Your task to perform on an android device: delete location history Image 0: 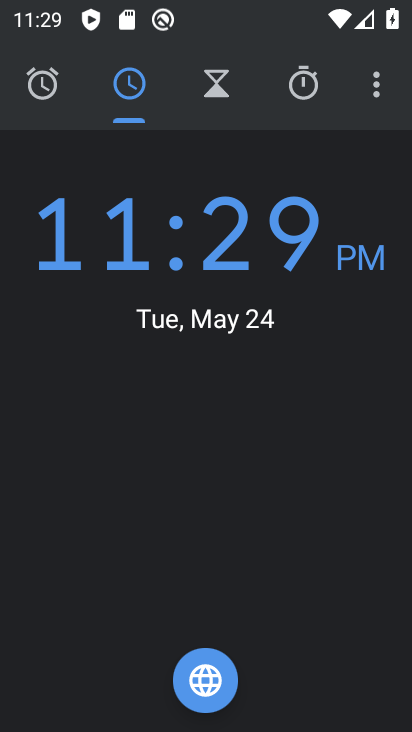
Step 0: press home button
Your task to perform on an android device: delete location history Image 1: 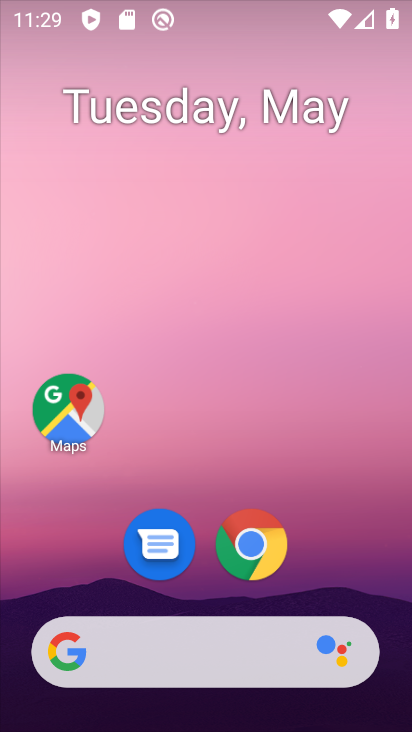
Step 1: drag from (399, 601) to (359, 132)
Your task to perform on an android device: delete location history Image 2: 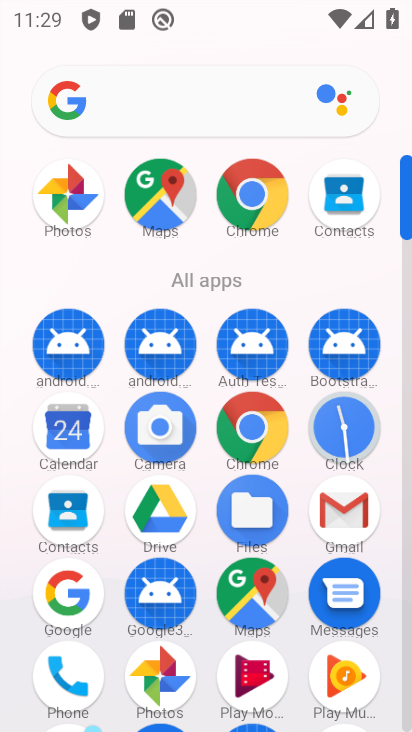
Step 2: drag from (244, 612) to (263, 242)
Your task to perform on an android device: delete location history Image 3: 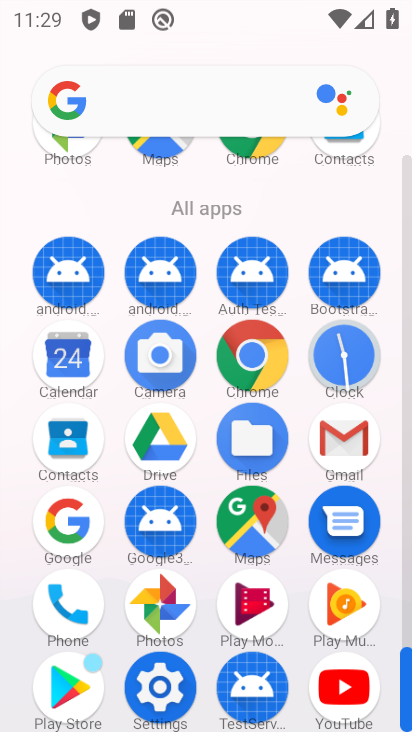
Step 3: click (163, 700)
Your task to perform on an android device: delete location history Image 4: 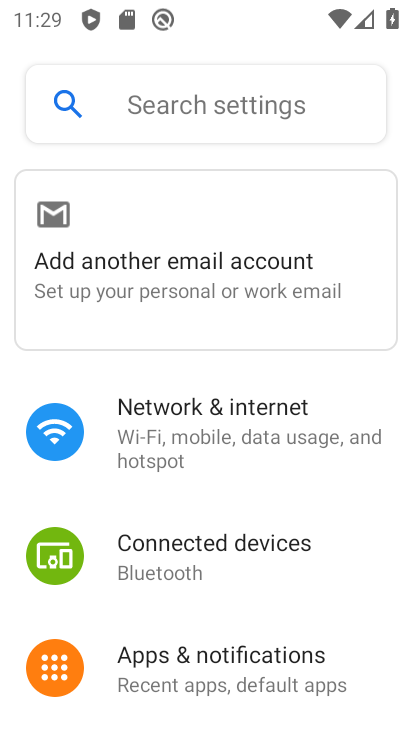
Step 4: drag from (353, 598) to (351, 253)
Your task to perform on an android device: delete location history Image 5: 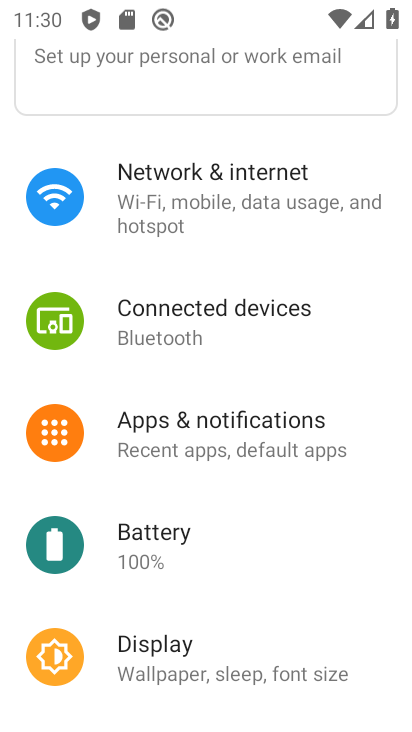
Step 5: drag from (318, 414) to (311, 295)
Your task to perform on an android device: delete location history Image 6: 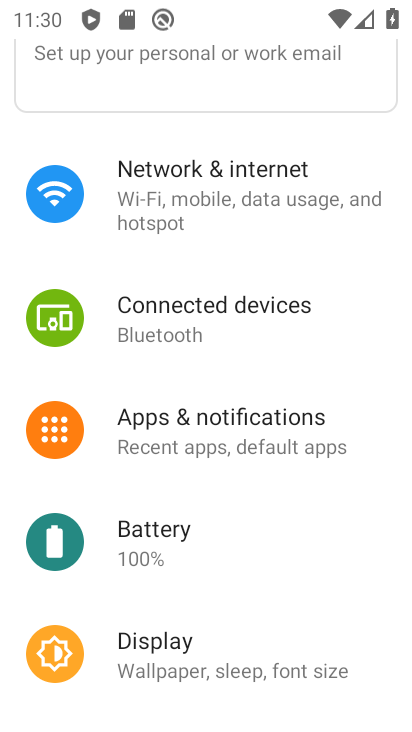
Step 6: drag from (248, 586) to (248, 307)
Your task to perform on an android device: delete location history Image 7: 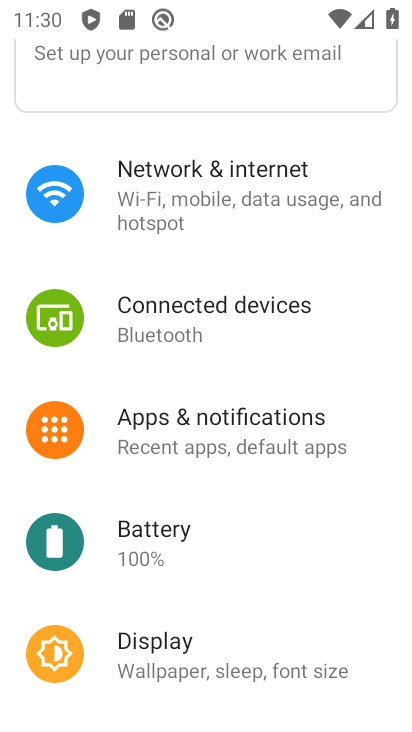
Step 7: drag from (254, 559) to (259, 270)
Your task to perform on an android device: delete location history Image 8: 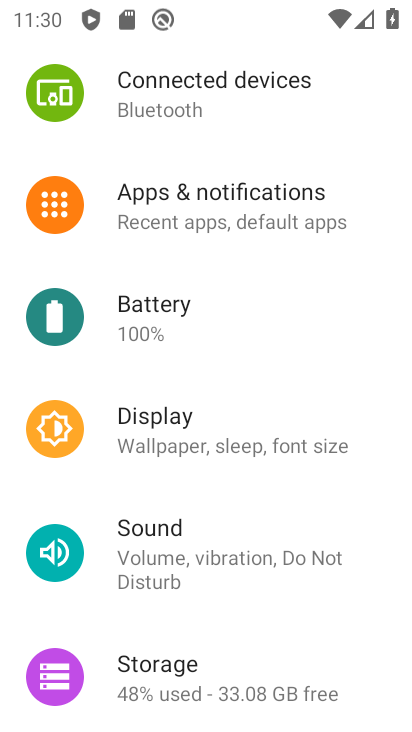
Step 8: drag from (232, 663) to (249, 298)
Your task to perform on an android device: delete location history Image 9: 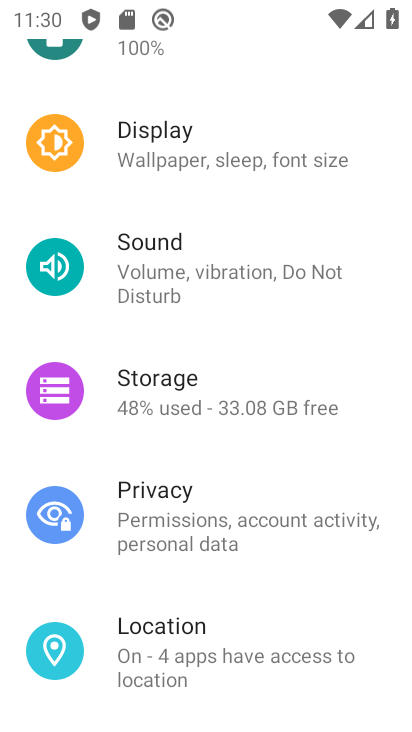
Step 9: drag from (265, 594) to (264, 358)
Your task to perform on an android device: delete location history Image 10: 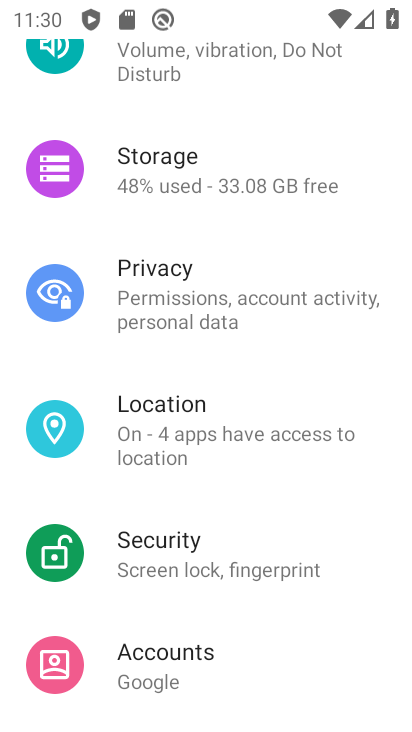
Step 10: click (249, 424)
Your task to perform on an android device: delete location history Image 11: 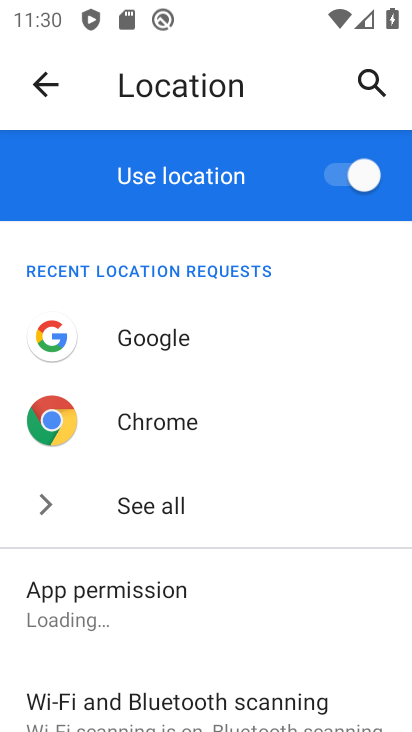
Step 11: drag from (251, 653) to (254, 267)
Your task to perform on an android device: delete location history Image 12: 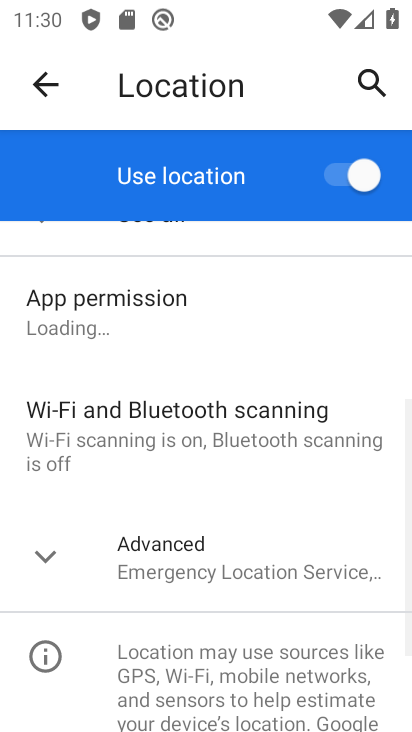
Step 12: drag from (268, 611) to (266, 266)
Your task to perform on an android device: delete location history Image 13: 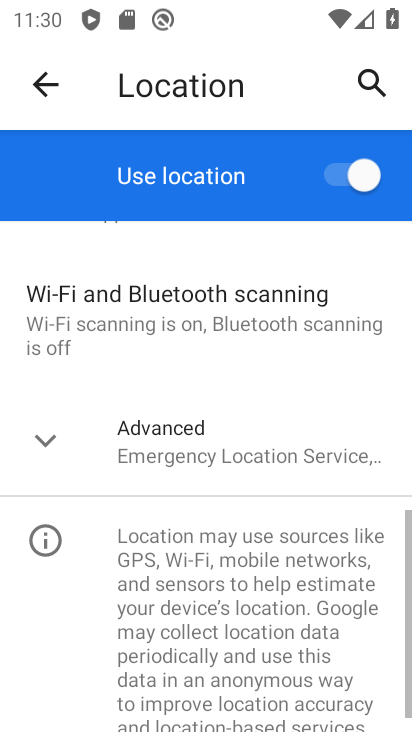
Step 13: click (213, 432)
Your task to perform on an android device: delete location history Image 14: 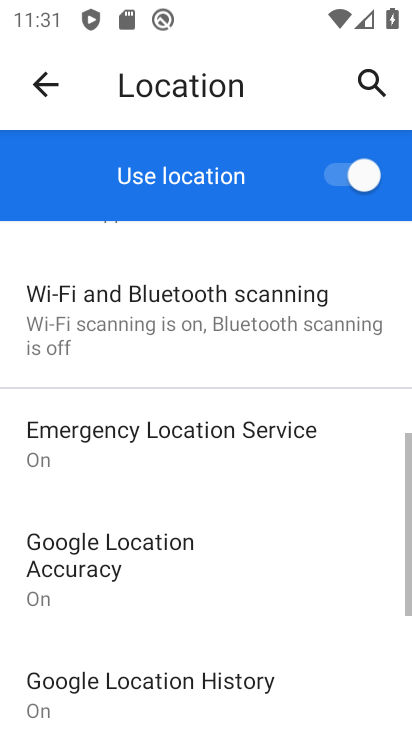
Step 14: drag from (209, 640) to (207, 288)
Your task to perform on an android device: delete location history Image 15: 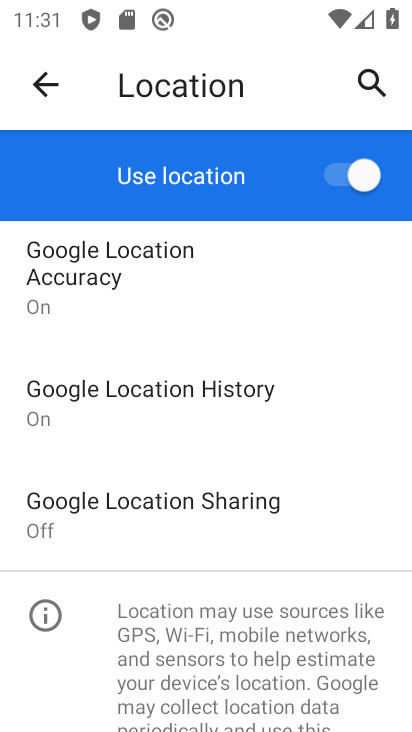
Step 15: click (176, 405)
Your task to perform on an android device: delete location history Image 16: 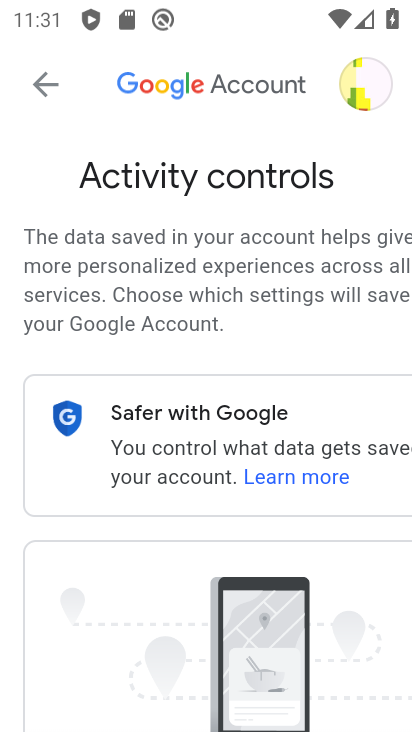
Step 16: drag from (153, 611) to (202, 281)
Your task to perform on an android device: delete location history Image 17: 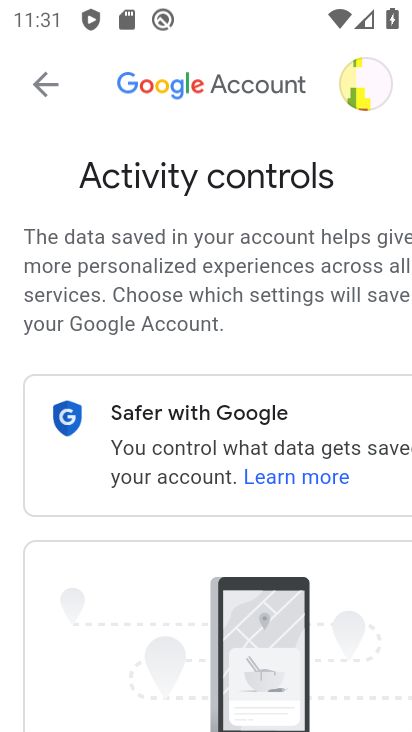
Step 17: drag from (140, 611) to (155, 244)
Your task to perform on an android device: delete location history Image 18: 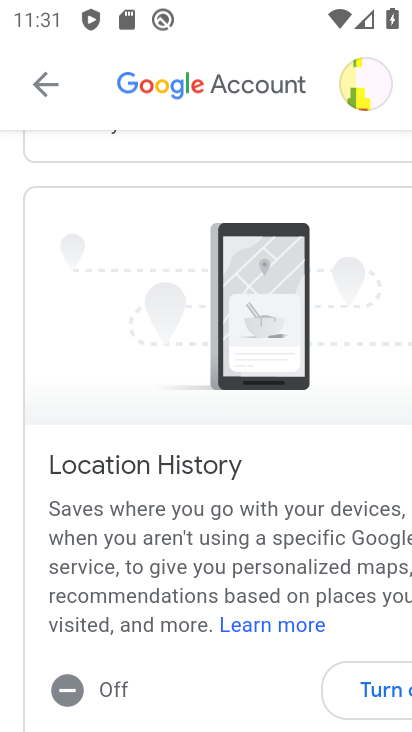
Step 18: drag from (161, 624) to (135, 225)
Your task to perform on an android device: delete location history Image 19: 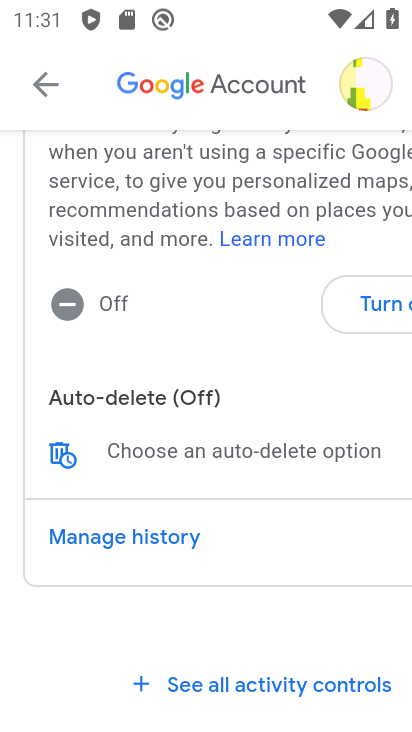
Step 19: click (141, 542)
Your task to perform on an android device: delete location history Image 20: 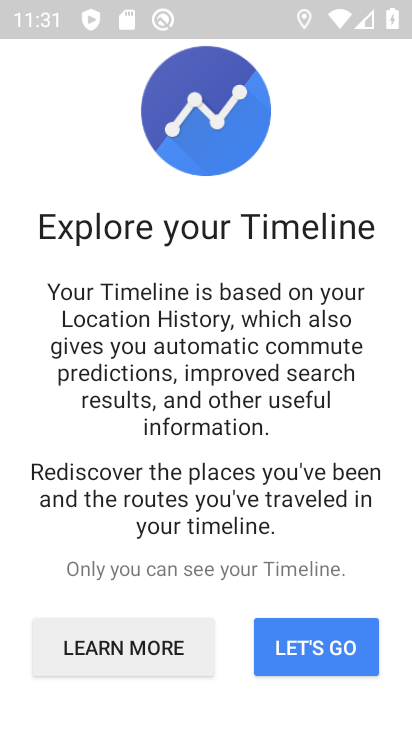
Step 20: click (290, 654)
Your task to perform on an android device: delete location history Image 21: 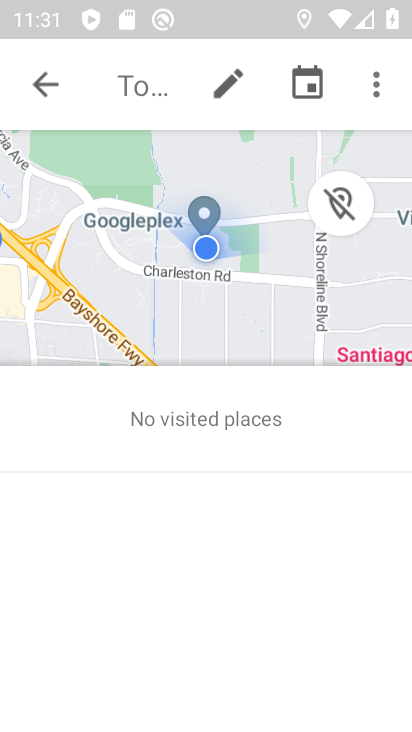
Step 21: click (378, 93)
Your task to perform on an android device: delete location history Image 22: 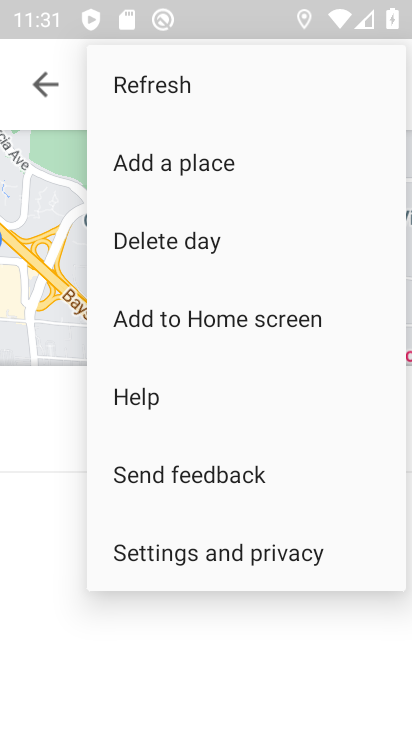
Step 22: click (166, 533)
Your task to perform on an android device: delete location history Image 23: 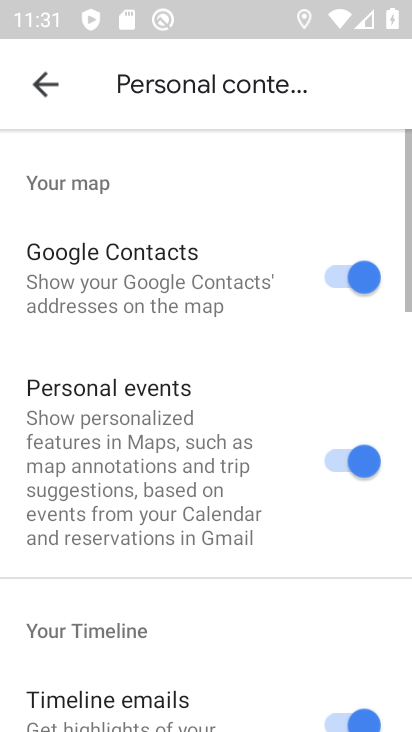
Step 23: drag from (172, 641) to (193, 205)
Your task to perform on an android device: delete location history Image 24: 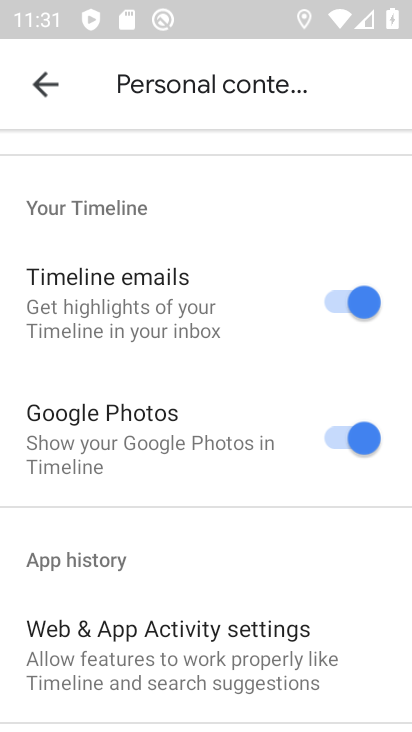
Step 24: drag from (167, 562) to (189, 238)
Your task to perform on an android device: delete location history Image 25: 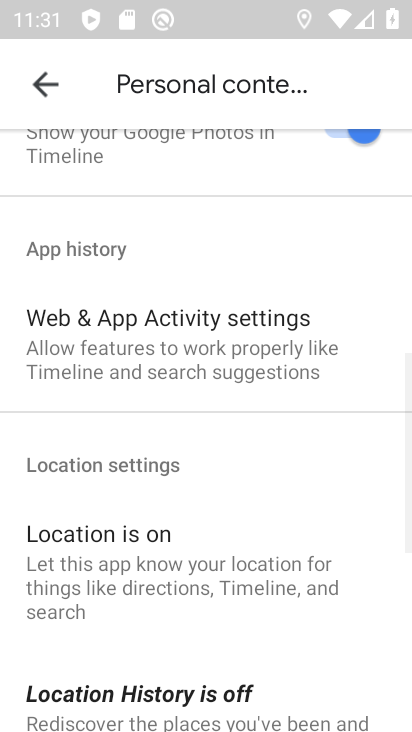
Step 25: drag from (192, 678) to (188, 246)
Your task to perform on an android device: delete location history Image 26: 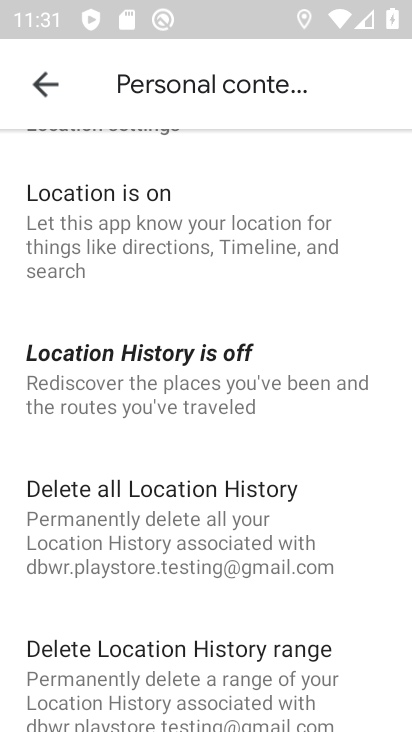
Step 26: click (136, 546)
Your task to perform on an android device: delete location history Image 27: 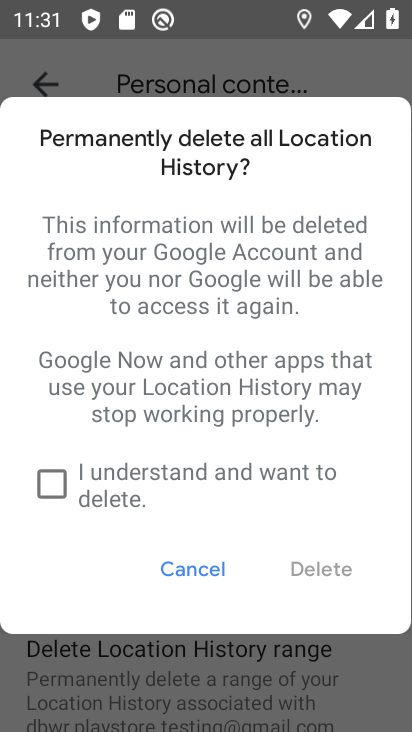
Step 27: click (55, 498)
Your task to perform on an android device: delete location history Image 28: 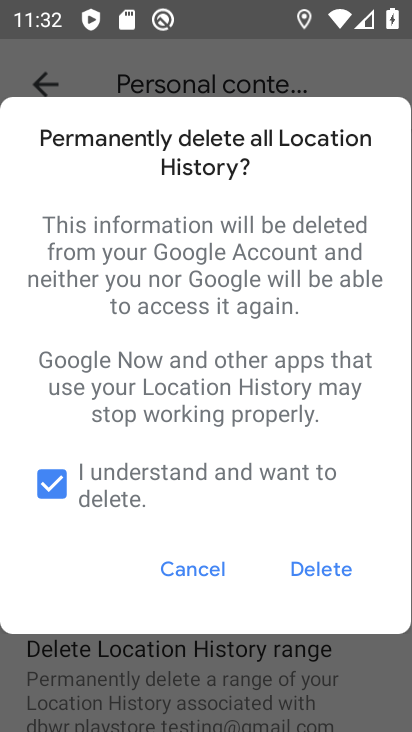
Step 28: click (319, 573)
Your task to perform on an android device: delete location history Image 29: 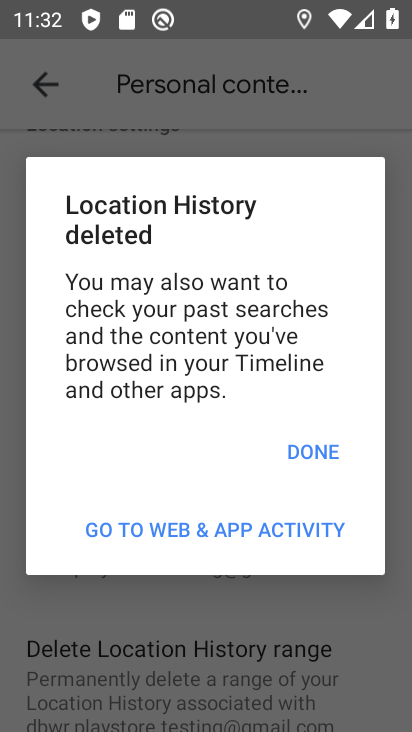
Step 29: task complete